Your task to perform on an android device: Open internet settings Image 0: 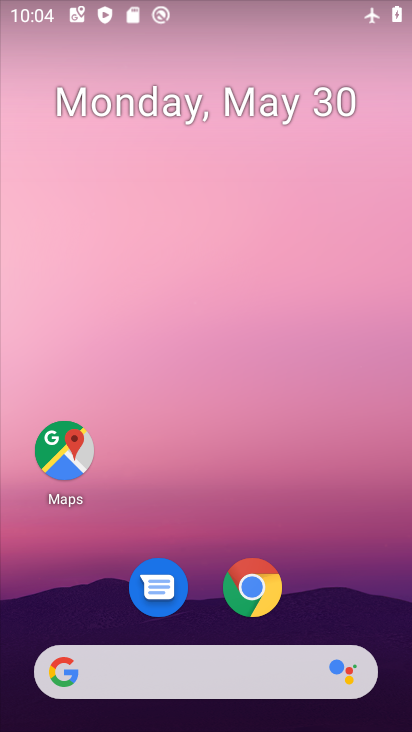
Step 0: drag from (361, 557) to (243, 43)
Your task to perform on an android device: Open internet settings Image 1: 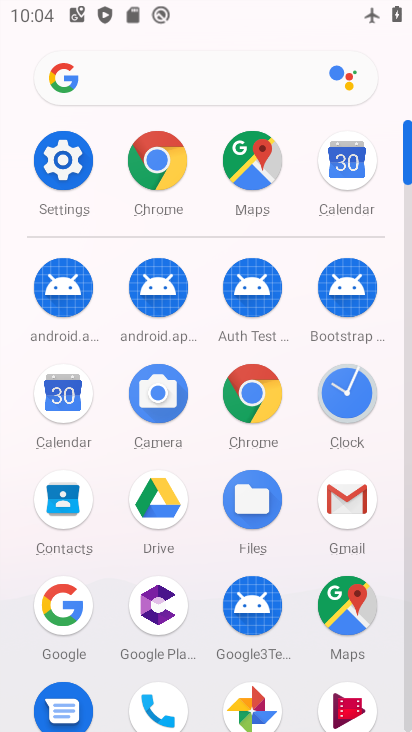
Step 1: drag from (16, 576) to (17, 189)
Your task to perform on an android device: Open internet settings Image 2: 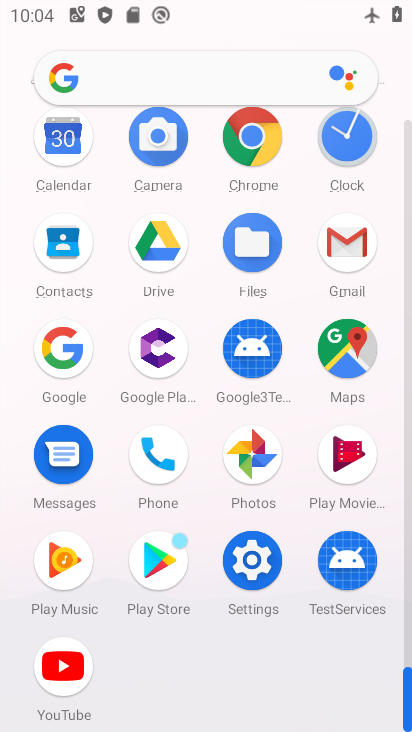
Step 2: drag from (26, 472) to (35, 261)
Your task to perform on an android device: Open internet settings Image 3: 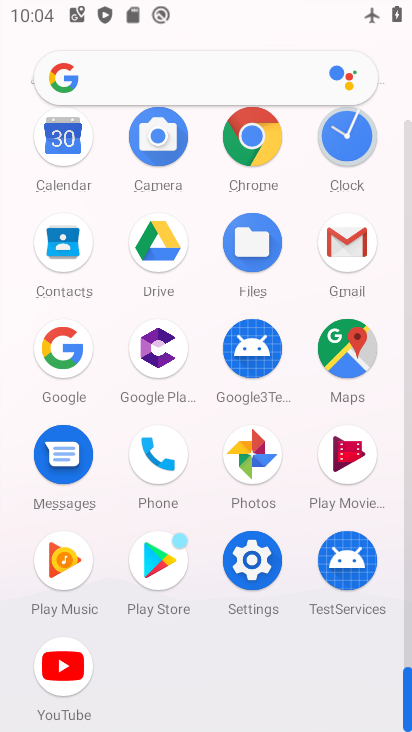
Step 3: click (251, 558)
Your task to perform on an android device: Open internet settings Image 4: 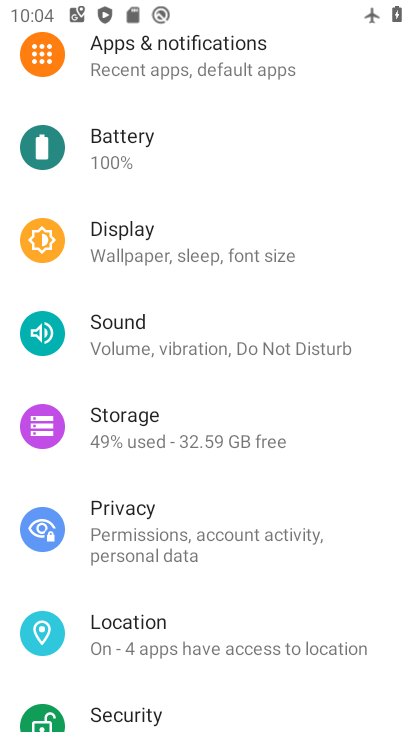
Step 4: drag from (268, 130) to (313, 529)
Your task to perform on an android device: Open internet settings Image 5: 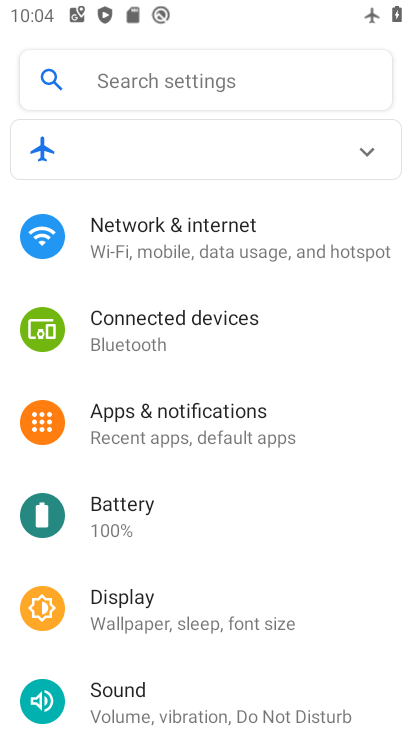
Step 5: click (270, 241)
Your task to perform on an android device: Open internet settings Image 6: 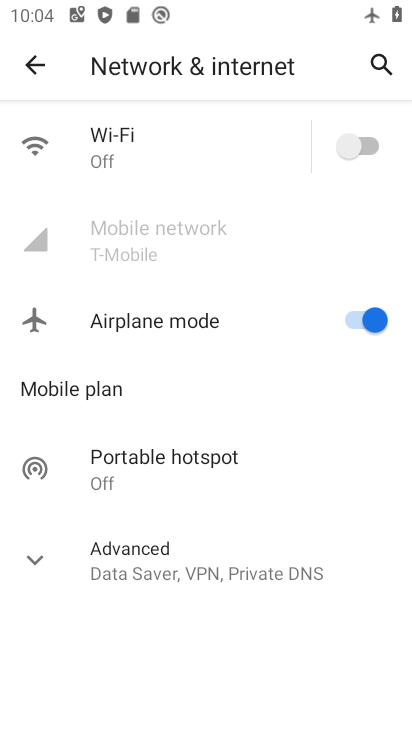
Step 6: click (44, 570)
Your task to perform on an android device: Open internet settings Image 7: 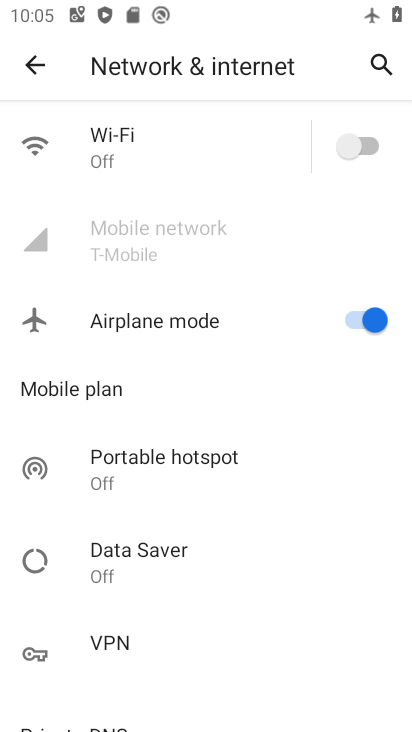
Step 7: task complete